Your task to perform on an android device: find photos in the google photos app Image 0: 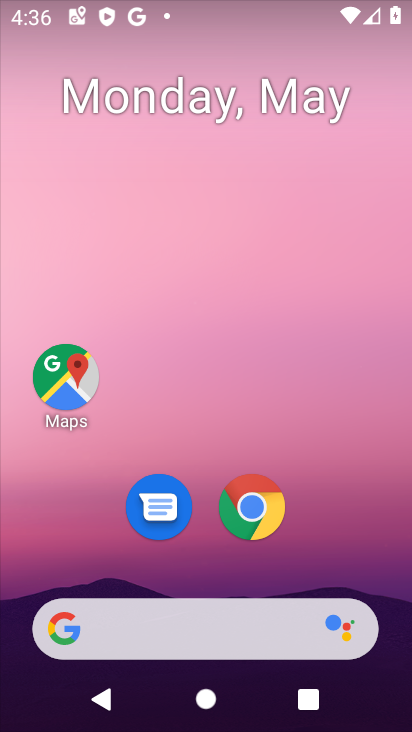
Step 0: drag from (348, 407) to (351, 0)
Your task to perform on an android device: find photos in the google photos app Image 1: 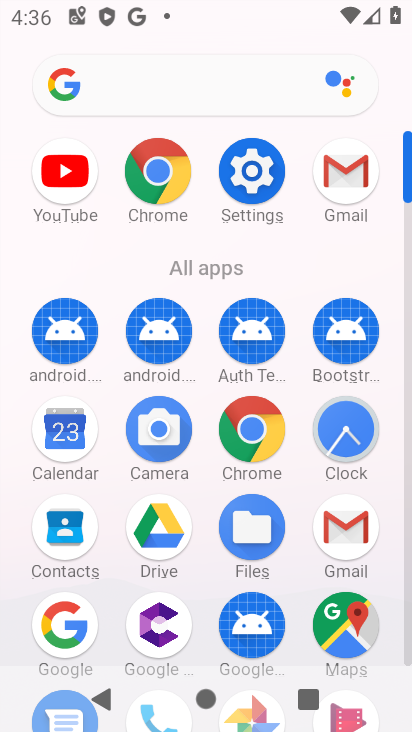
Step 1: drag from (406, 569) to (370, 272)
Your task to perform on an android device: find photos in the google photos app Image 2: 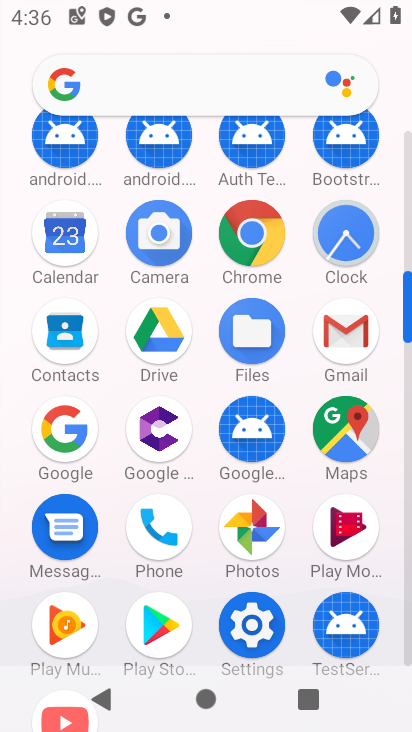
Step 2: click (241, 546)
Your task to perform on an android device: find photos in the google photos app Image 3: 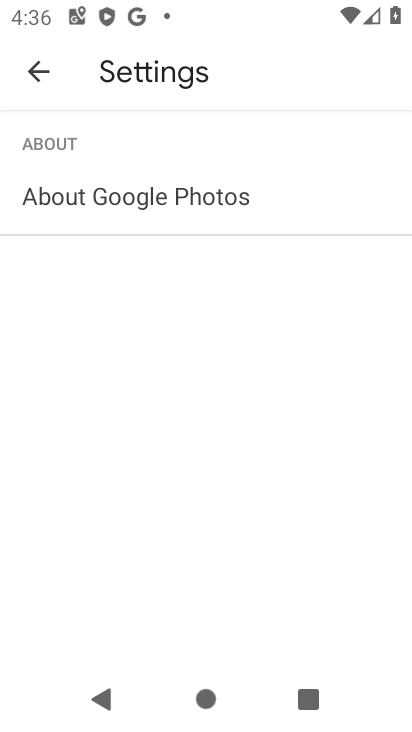
Step 3: click (25, 58)
Your task to perform on an android device: find photos in the google photos app Image 4: 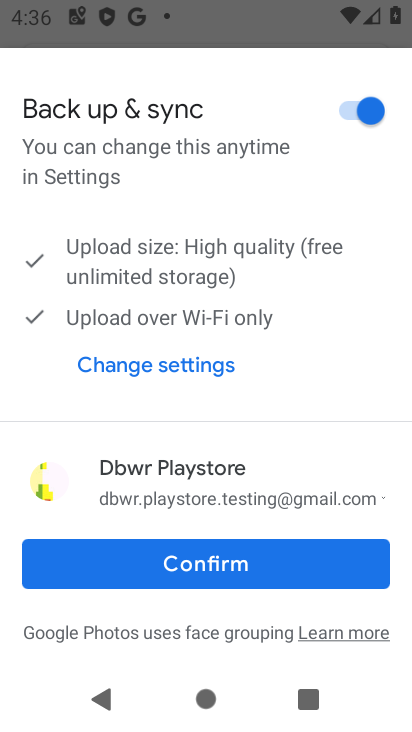
Step 4: click (247, 554)
Your task to perform on an android device: find photos in the google photos app Image 5: 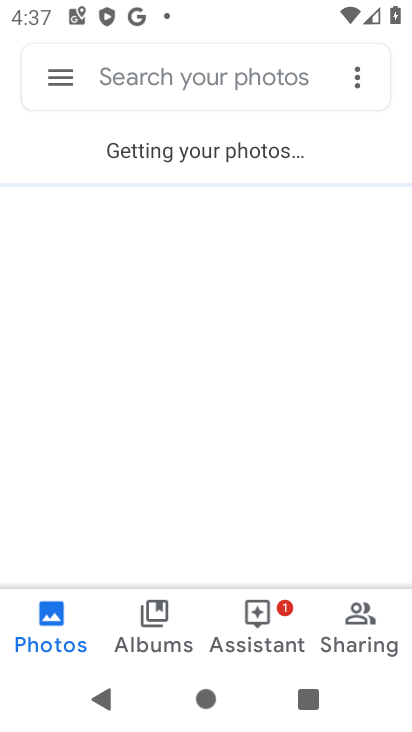
Step 5: click (56, 651)
Your task to perform on an android device: find photos in the google photos app Image 6: 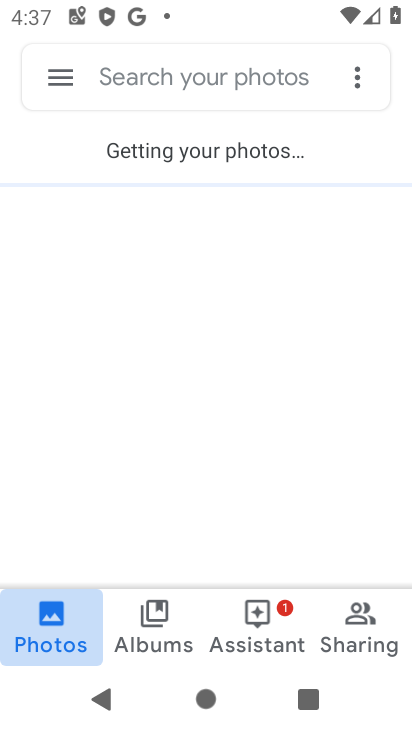
Step 6: click (54, 634)
Your task to perform on an android device: find photos in the google photos app Image 7: 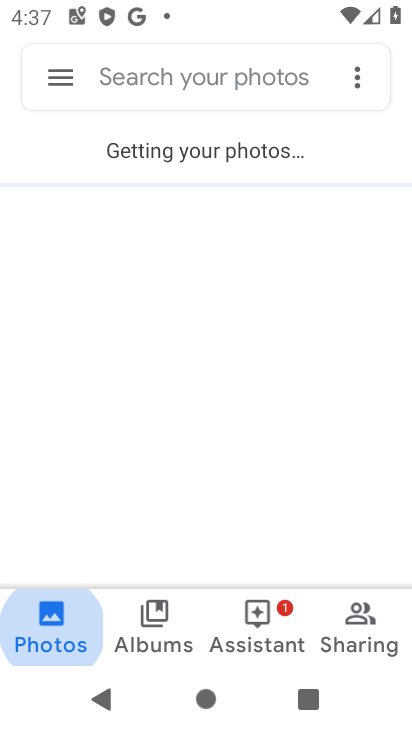
Step 7: click (54, 634)
Your task to perform on an android device: find photos in the google photos app Image 8: 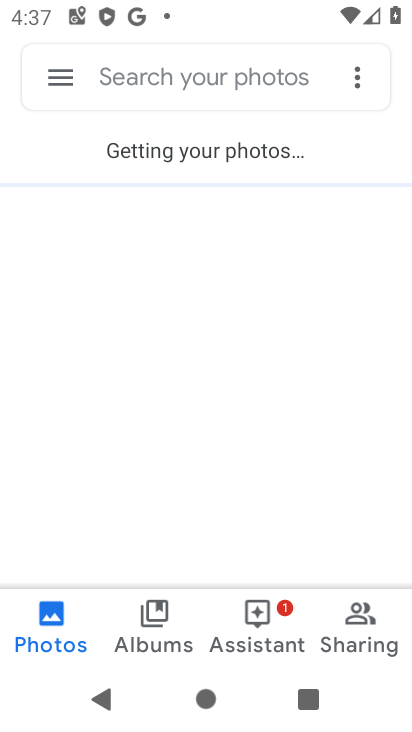
Step 8: click (39, 626)
Your task to perform on an android device: find photos in the google photos app Image 9: 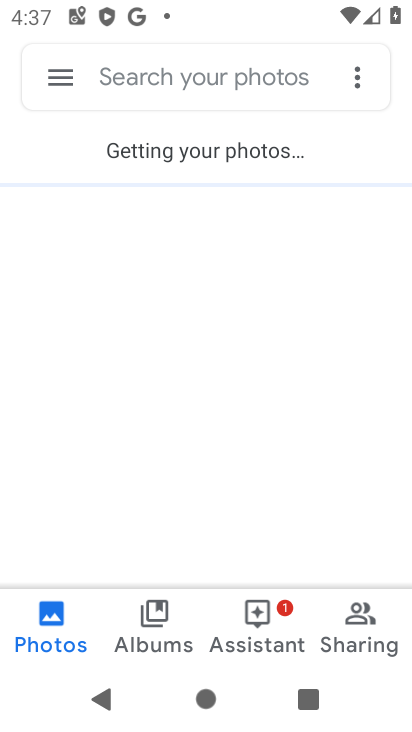
Step 9: click (39, 625)
Your task to perform on an android device: find photos in the google photos app Image 10: 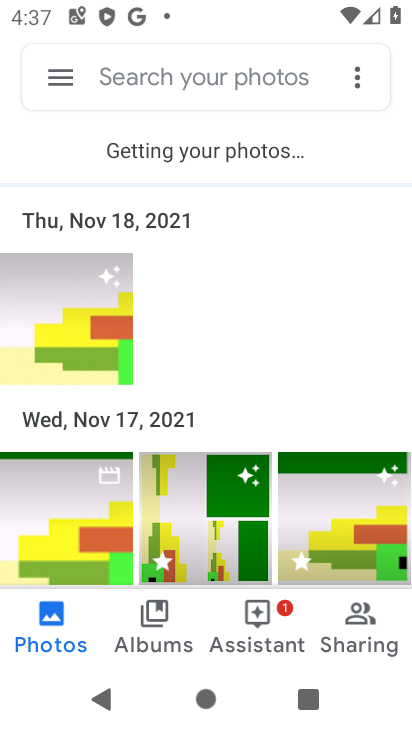
Step 10: click (33, 374)
Your task to perform on an android device: find photos in the google photos app Image 11: 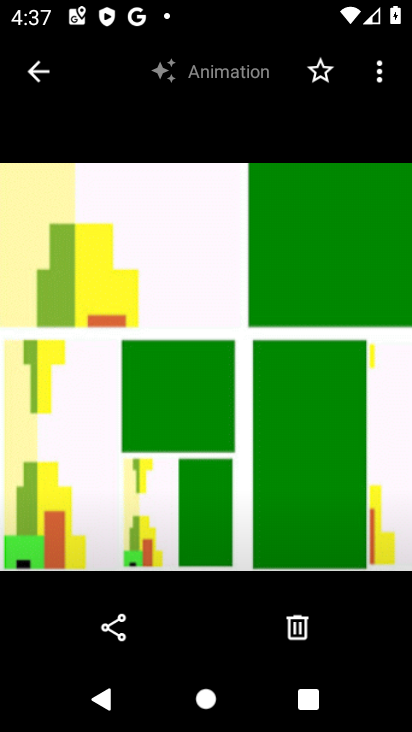
Step 11: task complete